Your task to perform on an android device: Do I have any events this weekend? Image 0: 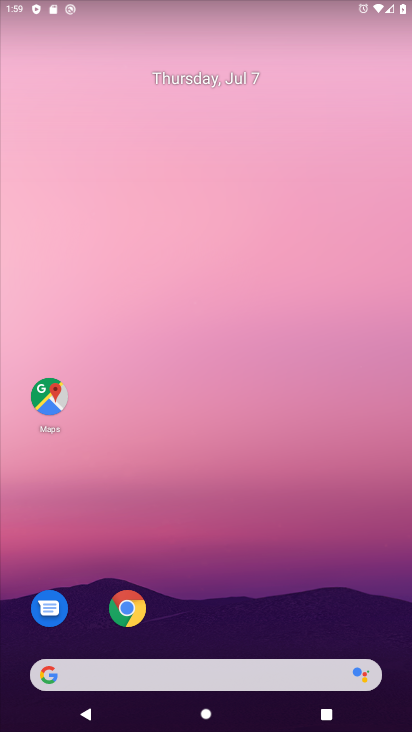
Step 0: drag from (235, 727) to (209, 104)
Your task to perform on an android device: Do I have any events this weekend? Image 1: 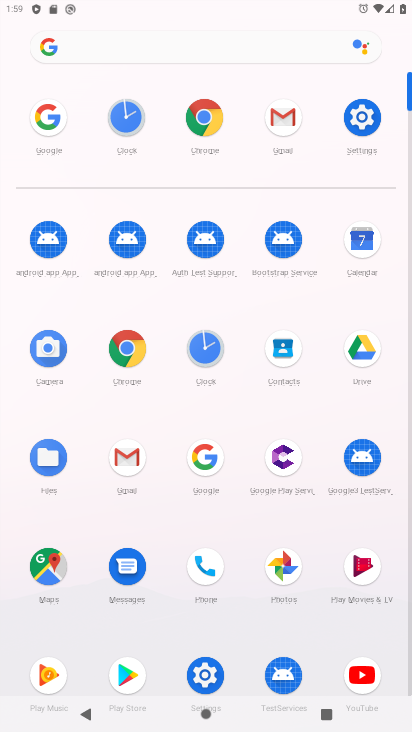
Step 1: click (358, 237)
Your task to perform on an android device: Do I have any events this weekend? Image 2: 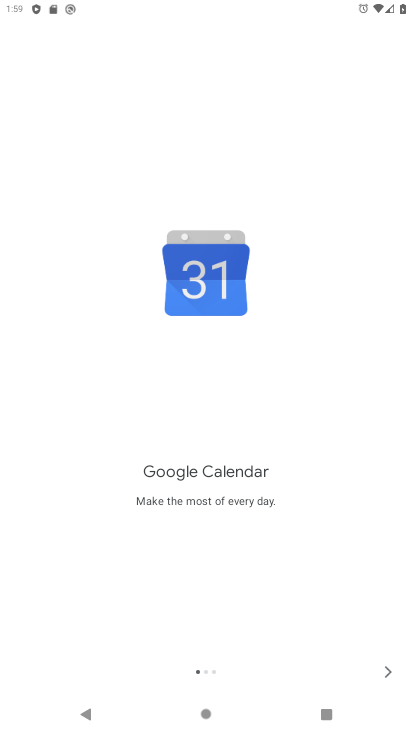
Step 2: click (381, 667)
Your task to perform on an android device: Do I have any events this weekend? Image 3: 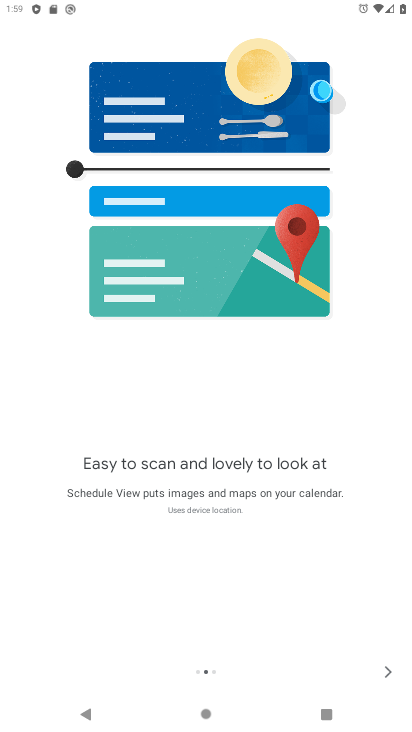
Step 3: click (388, 673)
Your task to perform on an android device: Do I have any events this weekend? Image 4: 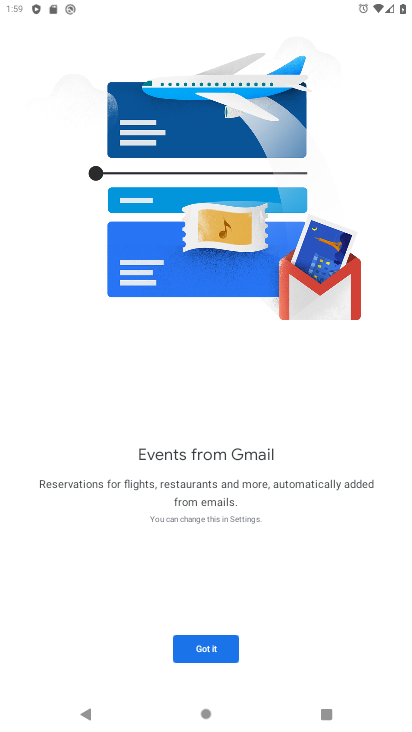
Step 4: click (207, 650)
Your task to perform on an android device: Do I have any events this weekend? Image 5: 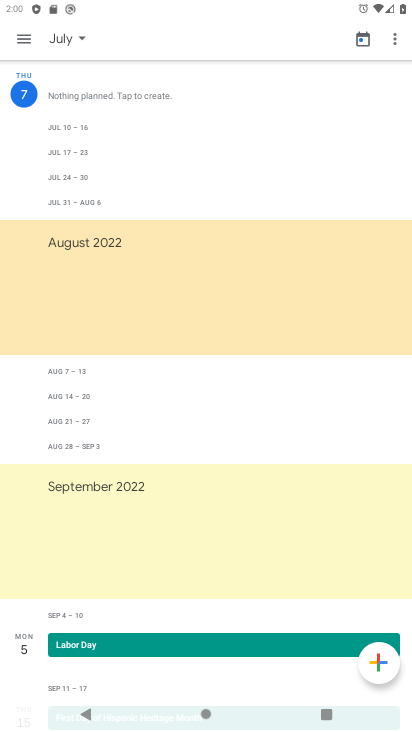
Step 5: click (76, 34)
Your task to perform on an android device: Do I have any events this weekend? Image 6: 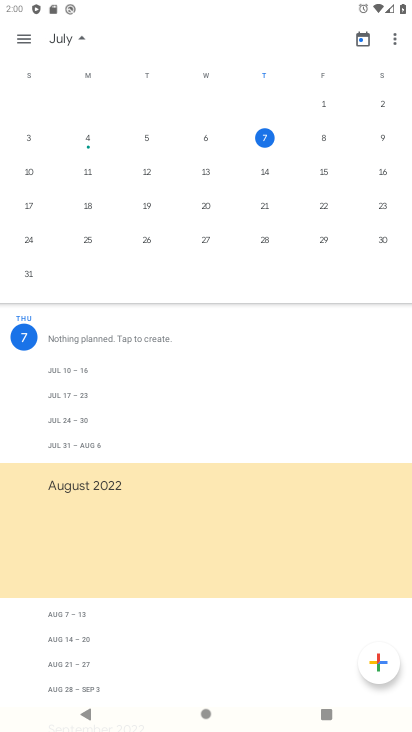
Step 6: click (380, 133)
Your task to perform on an android device: Do I have any events this weekend? Image 7: 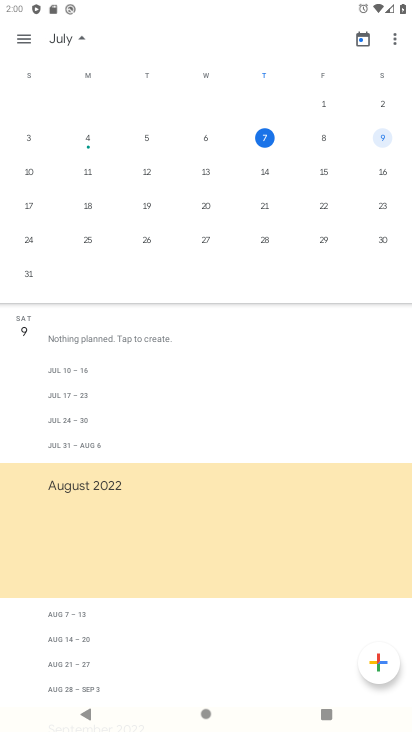
Step 7: click (23, 37)
Your task to perform on an android device: Do I have any events this weekend? Image 8: 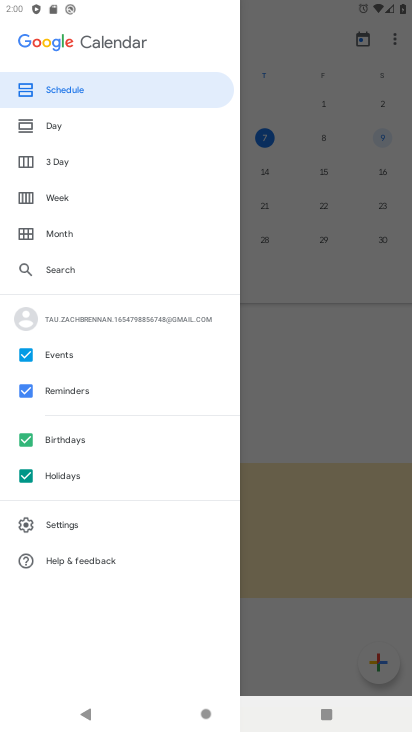
Step 8: click (60, 193)
Your task to perform on an android device: Do I have any events this weekend? Image 9: 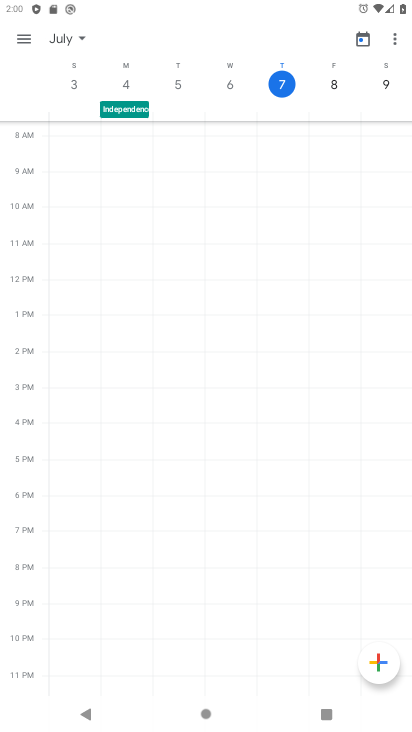
Step 9: click (388, 80)
Your task to perform on an android device: Do I have any events this weekend? Image 10: 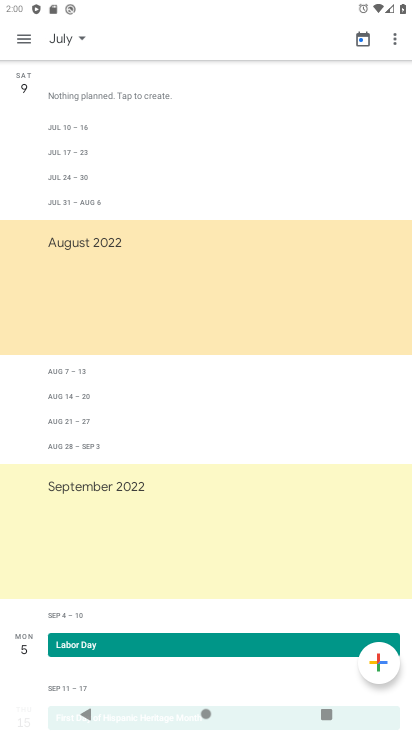
Step 10: task complete